Your task to perform on an android device: delete location history Image 0: 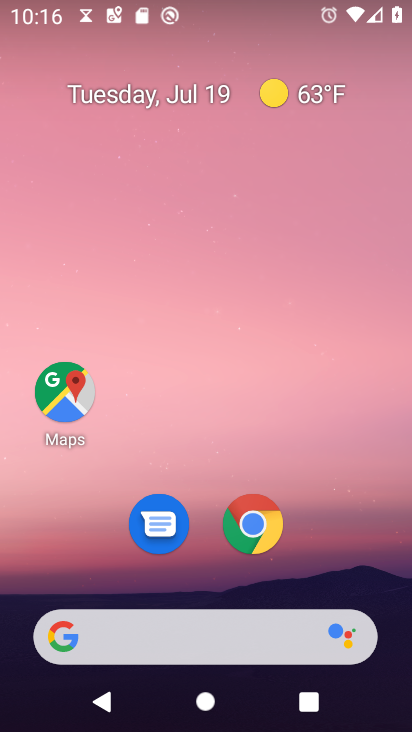
Step 0: click (62, 386)
Your task to perform on an android device: delete location history Image 1: 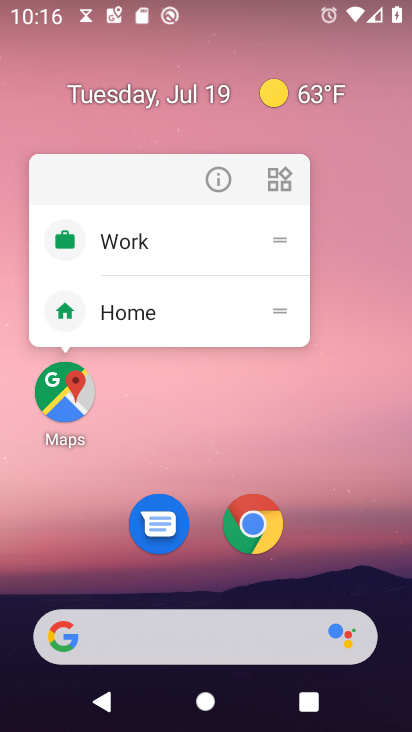
Step 1: click (71, 398)
Your task to perform on an android device: delete location history Image 2: 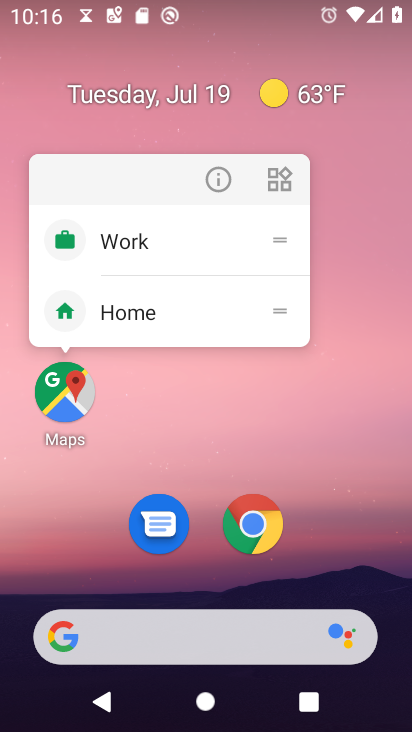
Step 2: click (61, 389)
Your task to perform on an android device: delete location history Image 3: 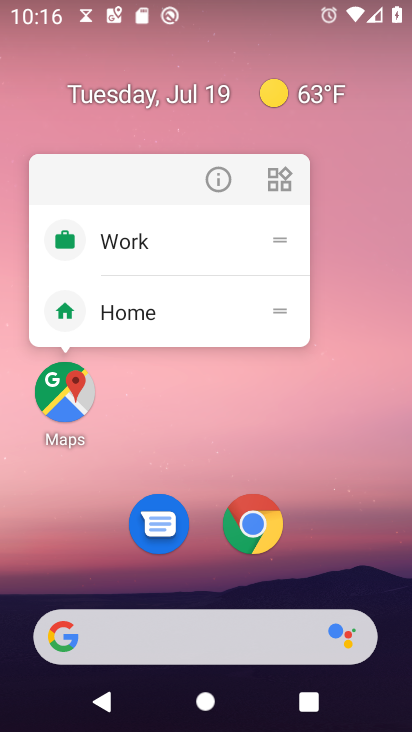
Step 3: click (66, 403)
Your task to perform on an android device: delete location history Image 4: 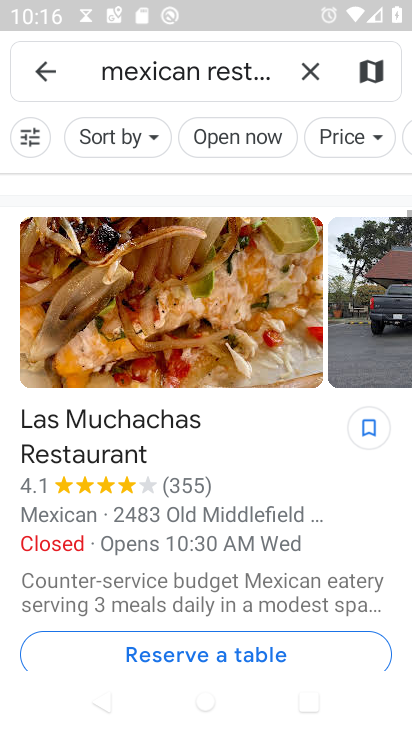
Step 4: click (35, 60)
Your task to perform on an android device: delete location history Image 5: 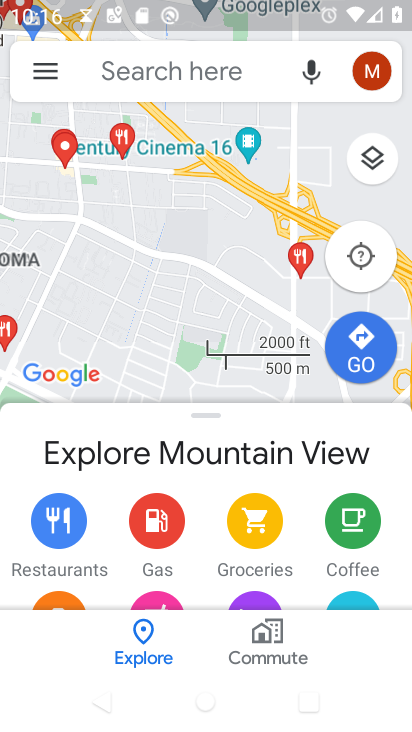
Step 5: click (42, 70)
Your task to perform on an android device: delete location history Image 6: 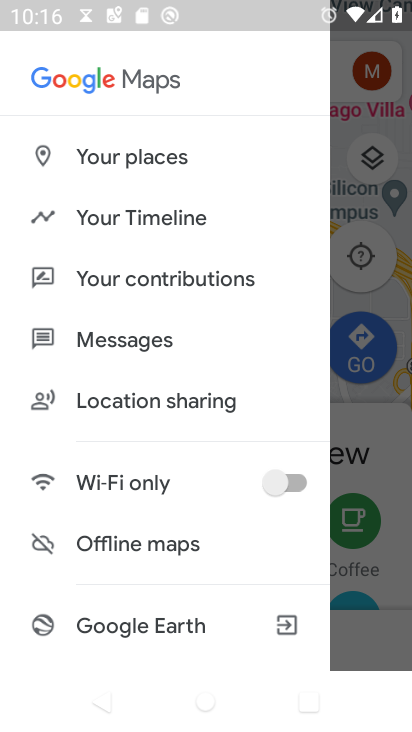
Step 6: click (162, 216)
Your task to perform on an android device: delete location history Image 7: 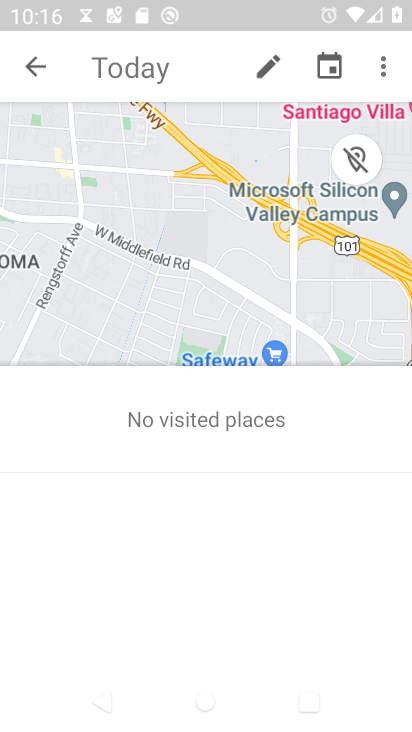
Step 7: click (383, 70)
Your task to perform on an android device: delete location history Image 8: 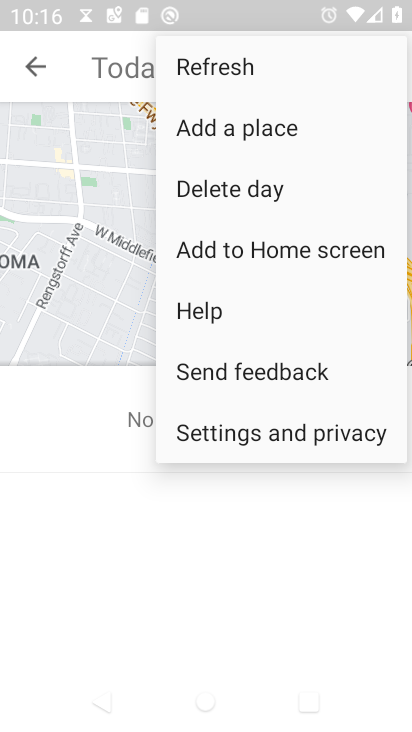
Step 8: click (256, 428)
Your task to perform on an android device: delete location history Image 9: 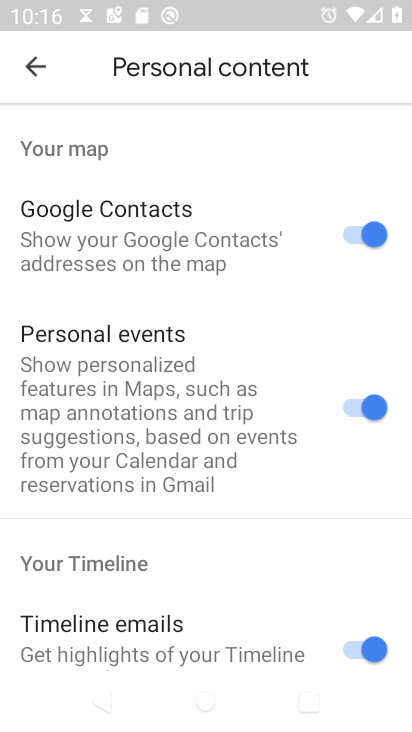
Step 9: drag from (221, 574) to (237, 78)
Your task to perform on an android device: delete location history Image 10: 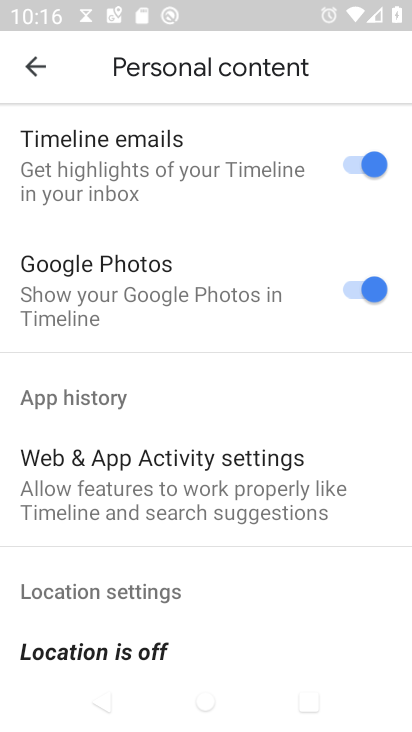
Step 10: drag from (186, 482) to (280, 86)
Your task to perform on an android device: delete location history Image 11: 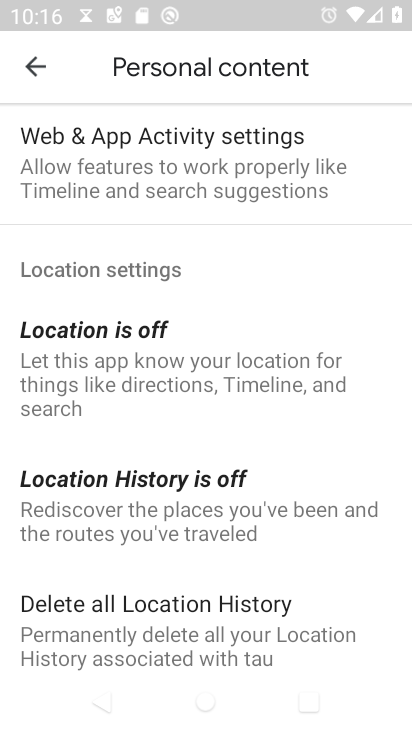
Step 11: drag from (208, 551) to (281, 203)
Your task to perform on an android device: delete location history Image 12: 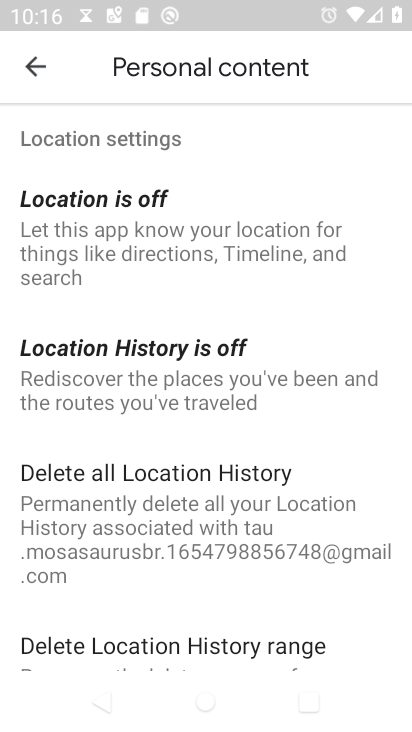
Step 12: click (180, 481)
Your task to perform on an android device: delete location history Image 13: 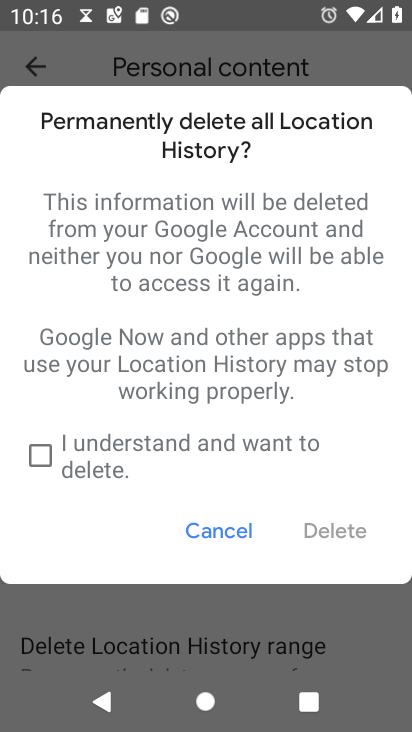
Step 13: click (39, 455)
Your task to perform on an android device: delete location history Image 14: 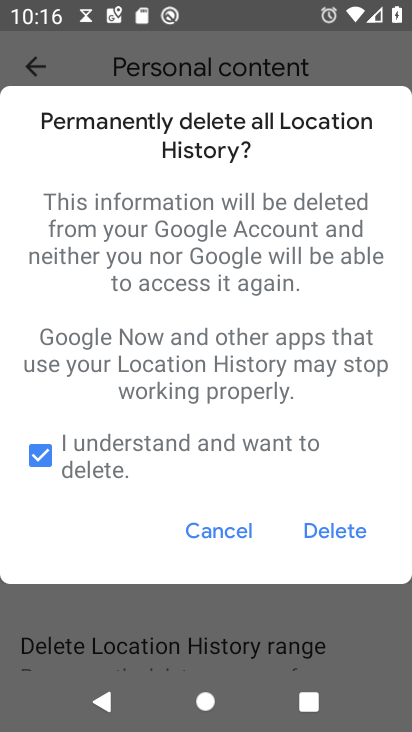
Step 14: click (348, 526)
Your task to perform on an android device: delete location history Image 15: 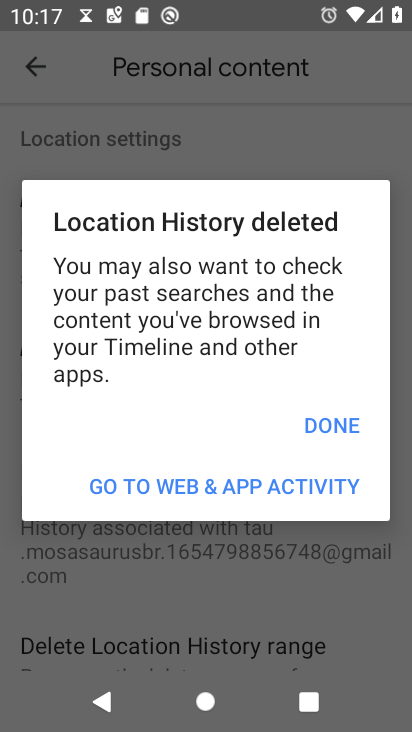
Step 15: click (338, 421)
Your task to perform on an android device: delete location history Image 16: 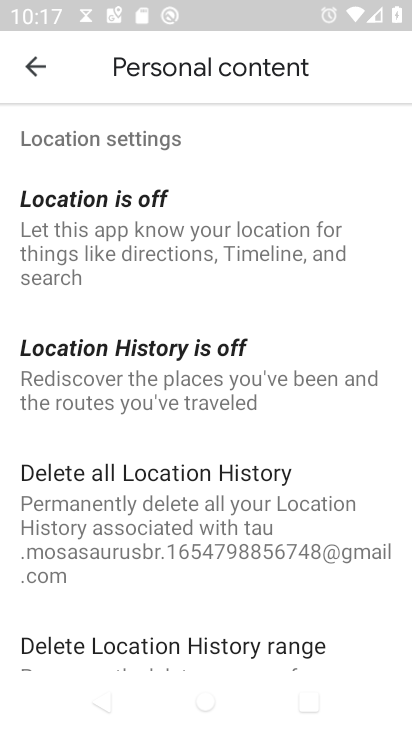
Step 16: task complete